Your task to perform on an android device: Go to Google Image 0: 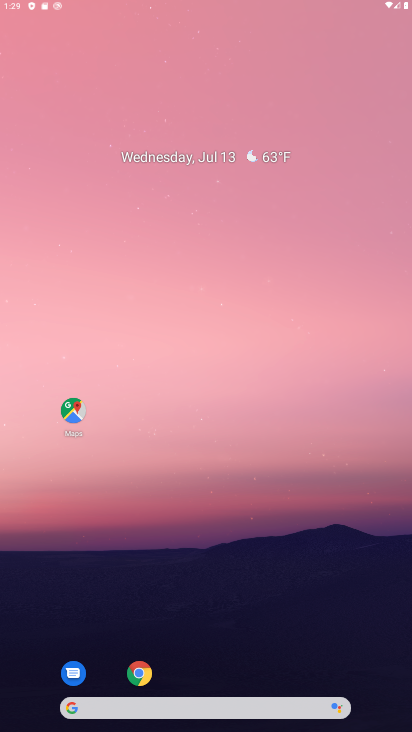
Step 0: click (211, 328)
Your task to perform on an android device: Go to Google Image 1: 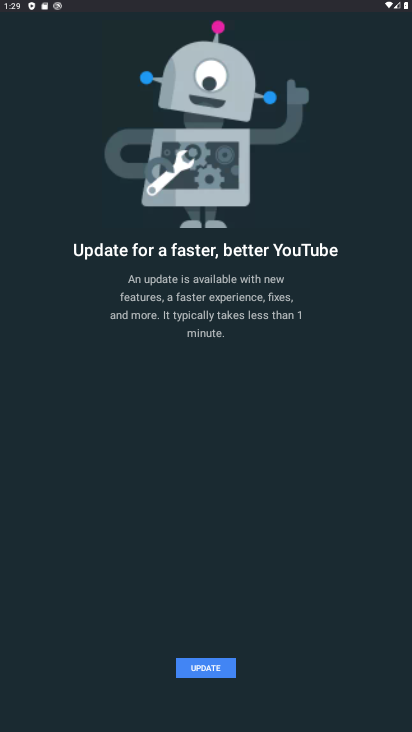
Step 1: press home button
Your task to perform on an android device: Go to Google Image 2: 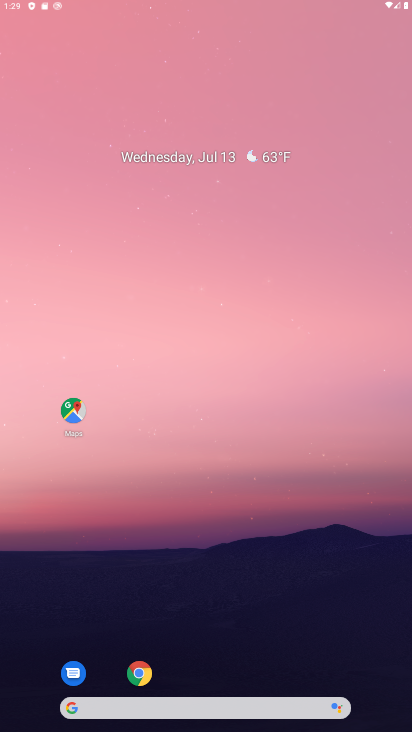
Step 2: drag from (285, 646) to (223, 249)
Your task to perform on an android device: Go to Google Image 3: 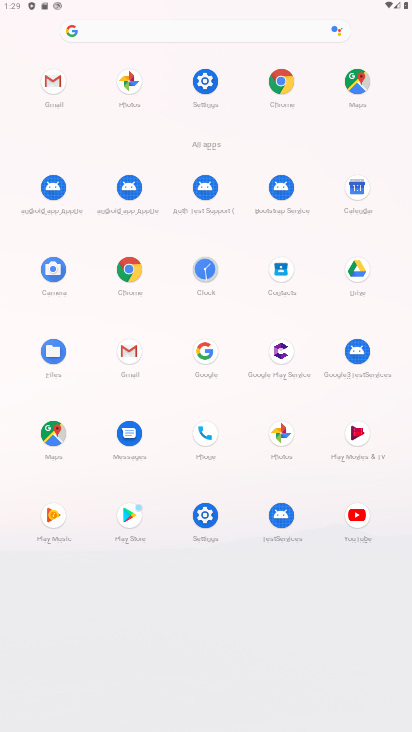
Step 3: click (193, 346)
Your task to perform on an android device: Go to Google Image 4: 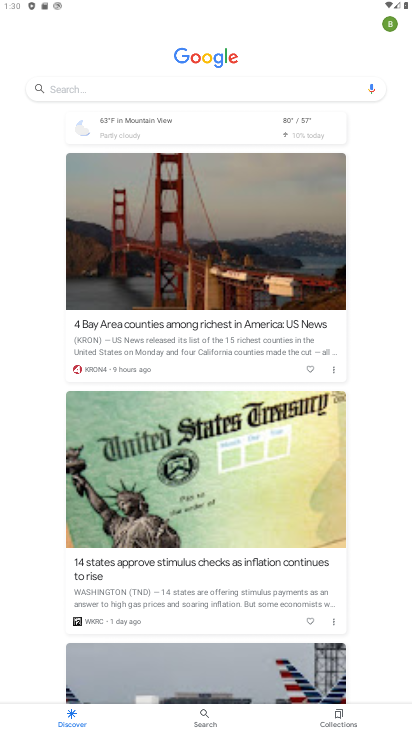
Step 4: task complete